Your task to perform on an android device: Find coffee shops on Maps Image 0: 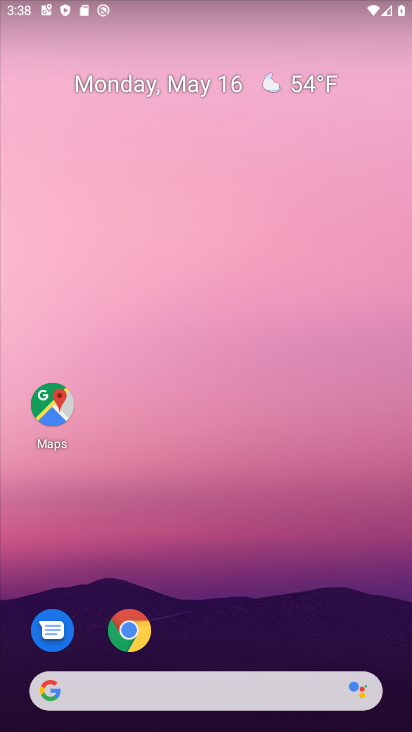
Step 0: drag from (222, 616) to (183, 163)
Your task to perform on an android device: Find coffee shops on Maps Image 1: 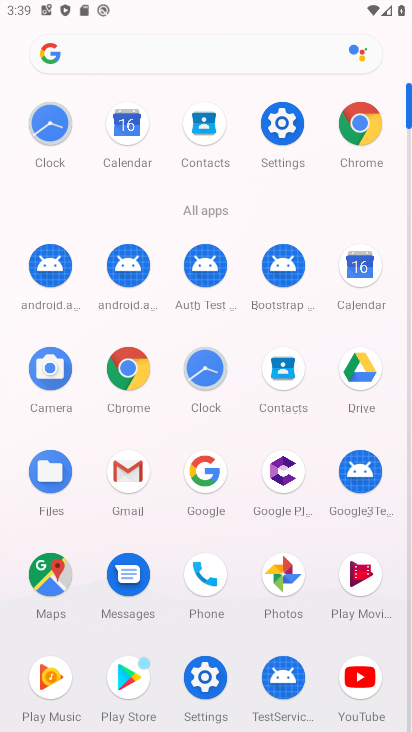
Step 1: click (59, 571)
Your task to perform on an android device: Find coffee shops on Maps Image 2: 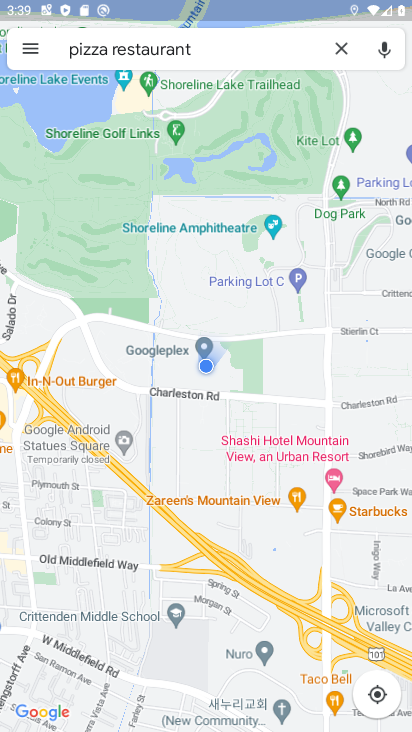
Step 2: click (341, 50)
Your task to perform on an android device: Find coffee shops on Maps Image 3: 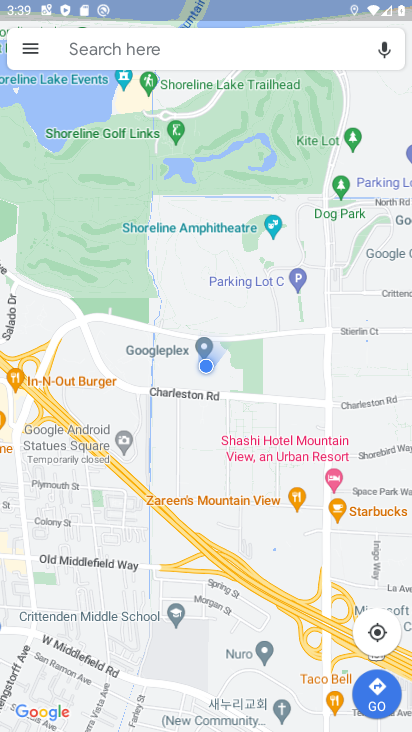
Step 3: click (206, 47)
Your task to perform on an android device: Find coffee shops on Maps Image 4: 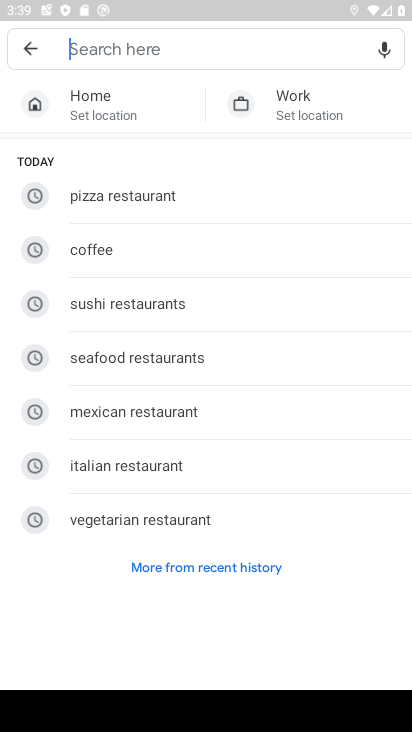
Step 4: click (166, 244)
Your task to perform on an android device: Find coffee shops on Maps Image 5: 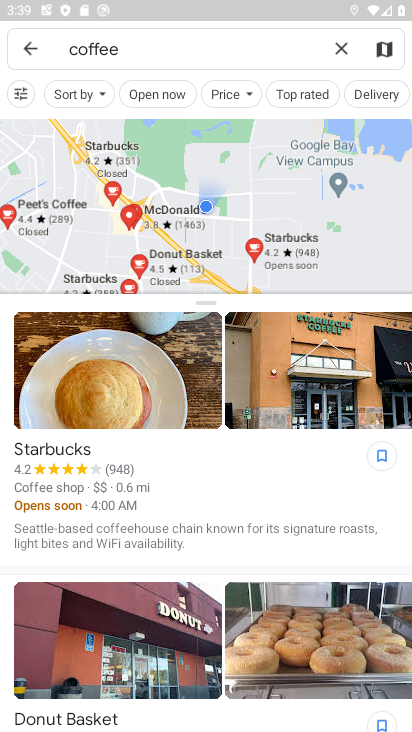
Step 5: task complete